Your task to perform on an android device: check google app version Image 0: 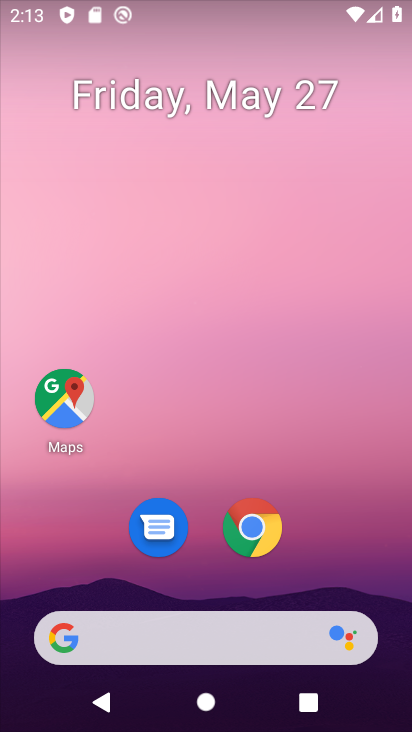
Step 0: drag from (239, 424) to (312, 209)
Your task to perform on an android device: check google app version Image 1: 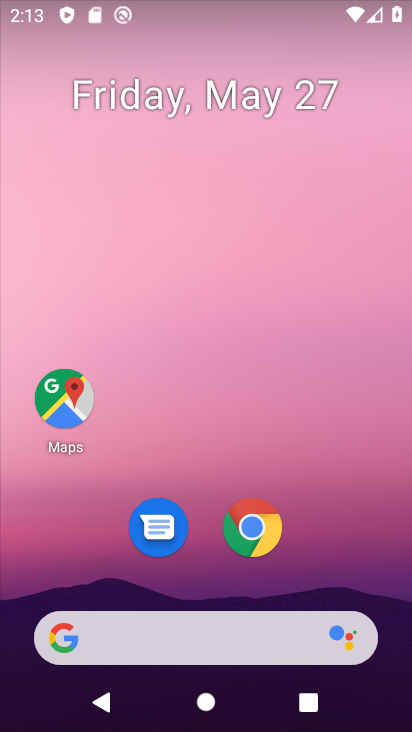
Step 1: drag from (203, 613) to (254, 129)
Your task to perform on an android device: check google app version Image 2: 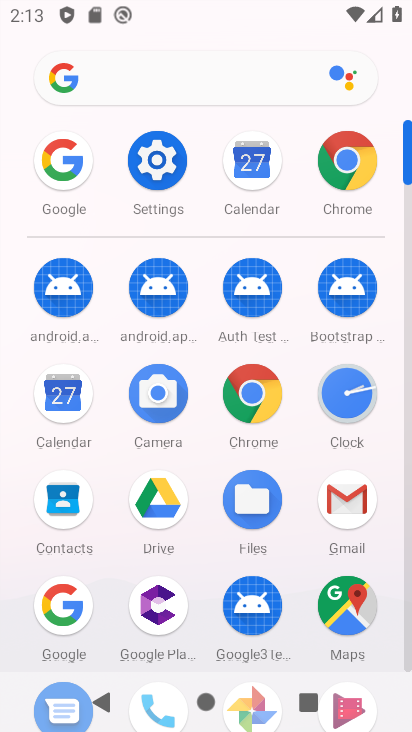
Step 2: click (73, 609)
Your task to perform on an android device: check google app version Image 3: 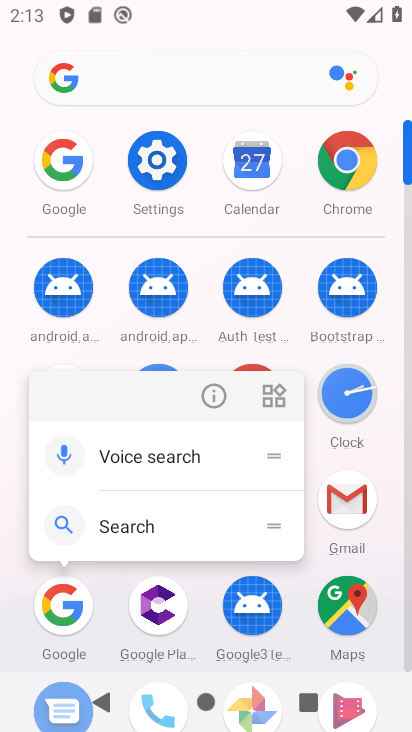
Step 3: click (210, 401)
Your task to perform on an android device: check google app version Image 4: 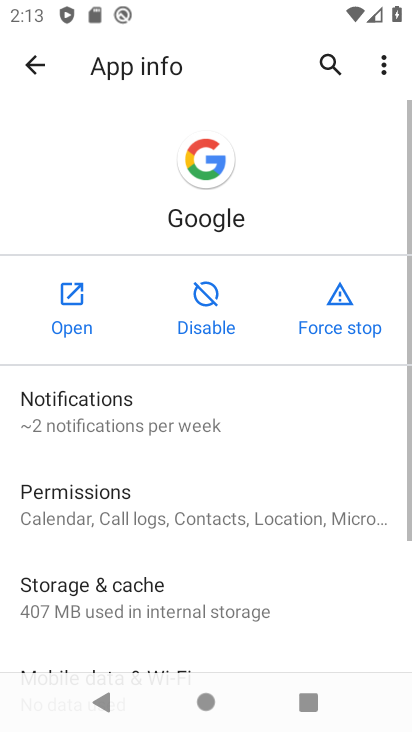
Step 4: drag from (224, 654) to (303, 266)
Your task to perform on an android device: check google app version Image 5: 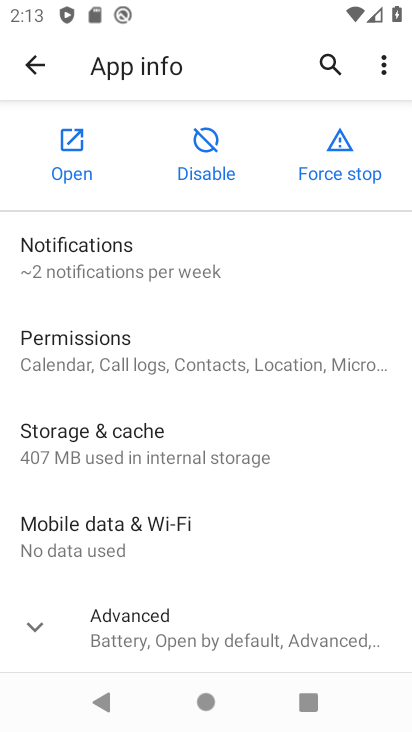
Step 5: click (232, 650)
Your task to perform on an android device: check google app version Image 6: 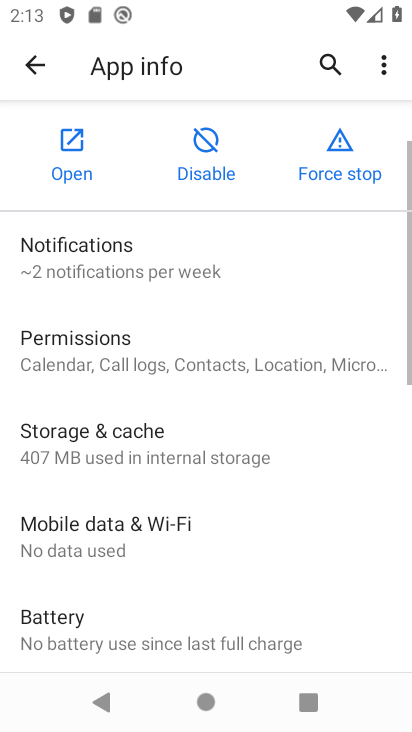
Step 6: task complete